Your task to perform on an android device: Open maps Image 0: 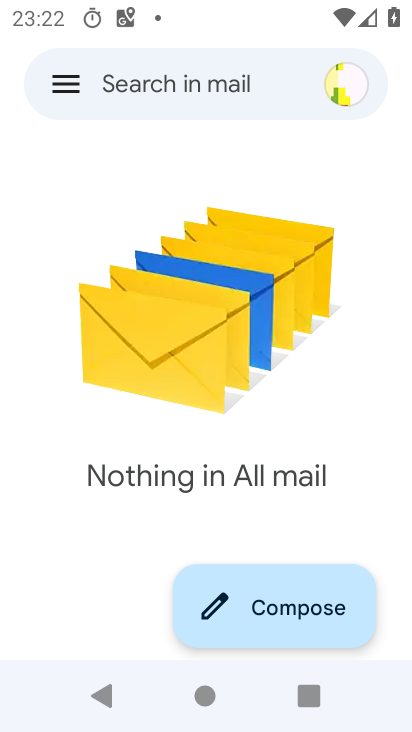
Step 0: press home button
Your task to perform on an android device: Open maps Image 1: 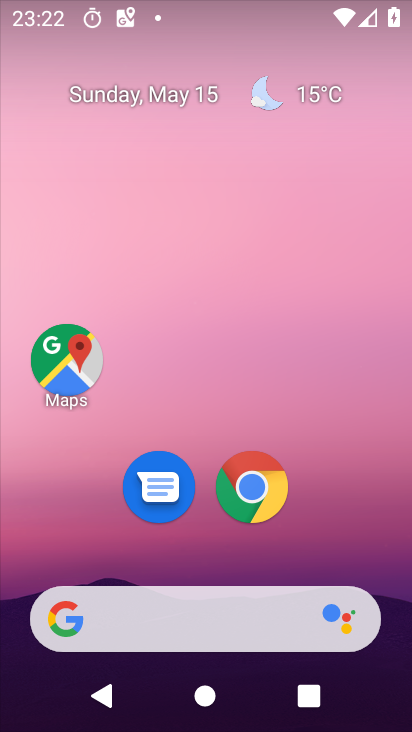
Step 1: click (69, 362)
Your task to perform on an android device: Open maps Image 2: 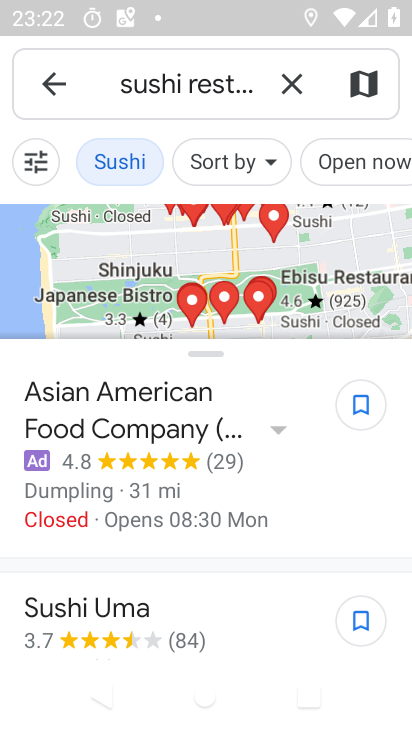
Step 2: click (55, 83)
Your task to perform on an android device: Open maps Image 3: 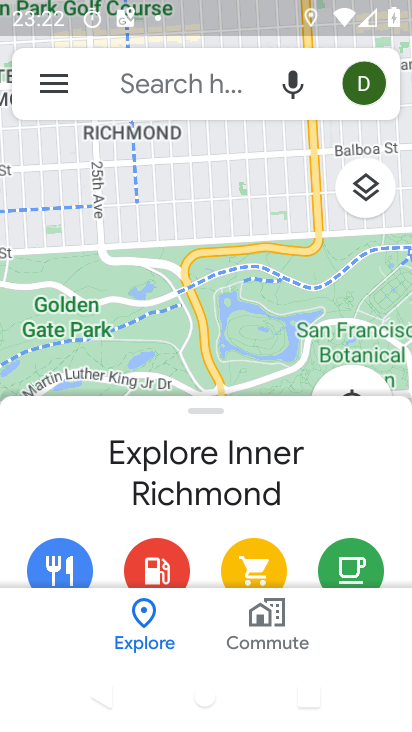
Step 3: task complete